Your task to perform on an android device: turn smart compose on in the gmail app Image 0: 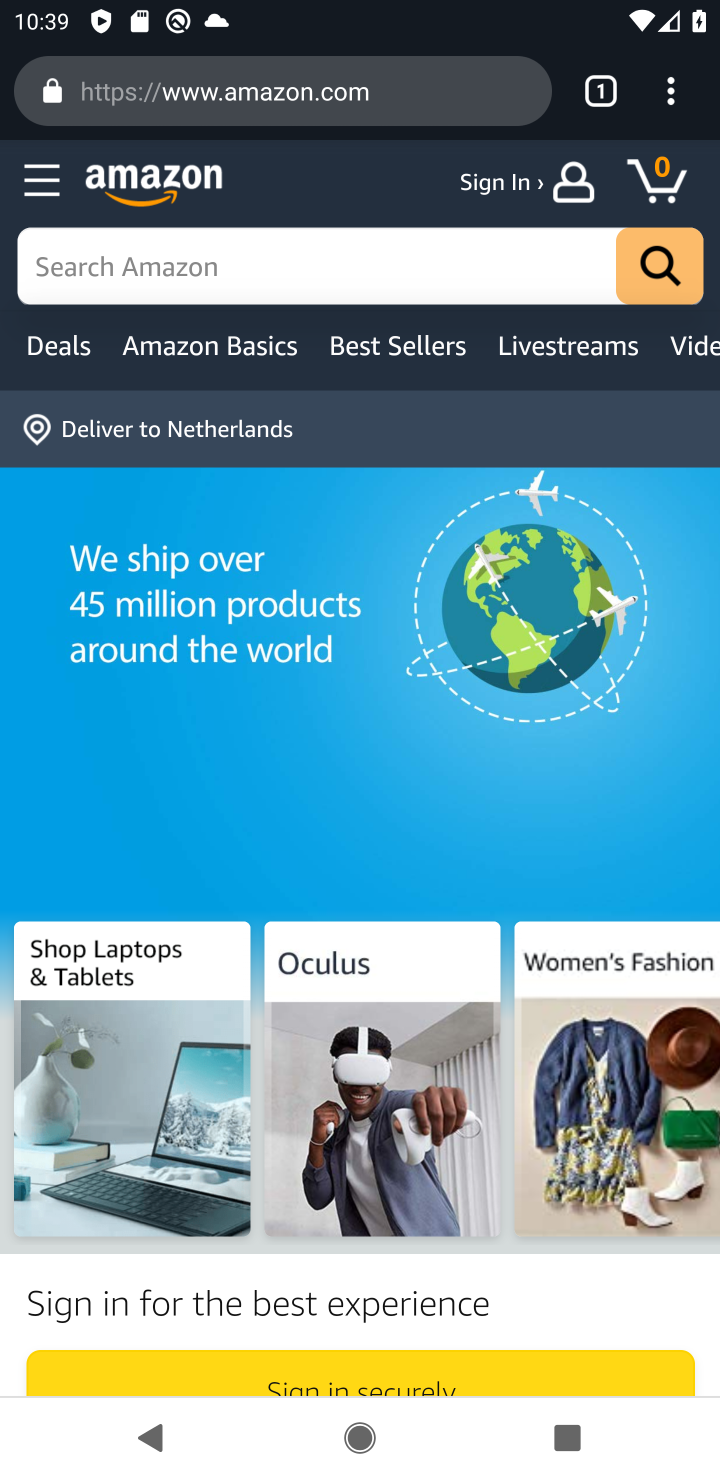
Step 0: press home button
Your task to perform on an android device: turn smart compose on in the gmail app Image 1: 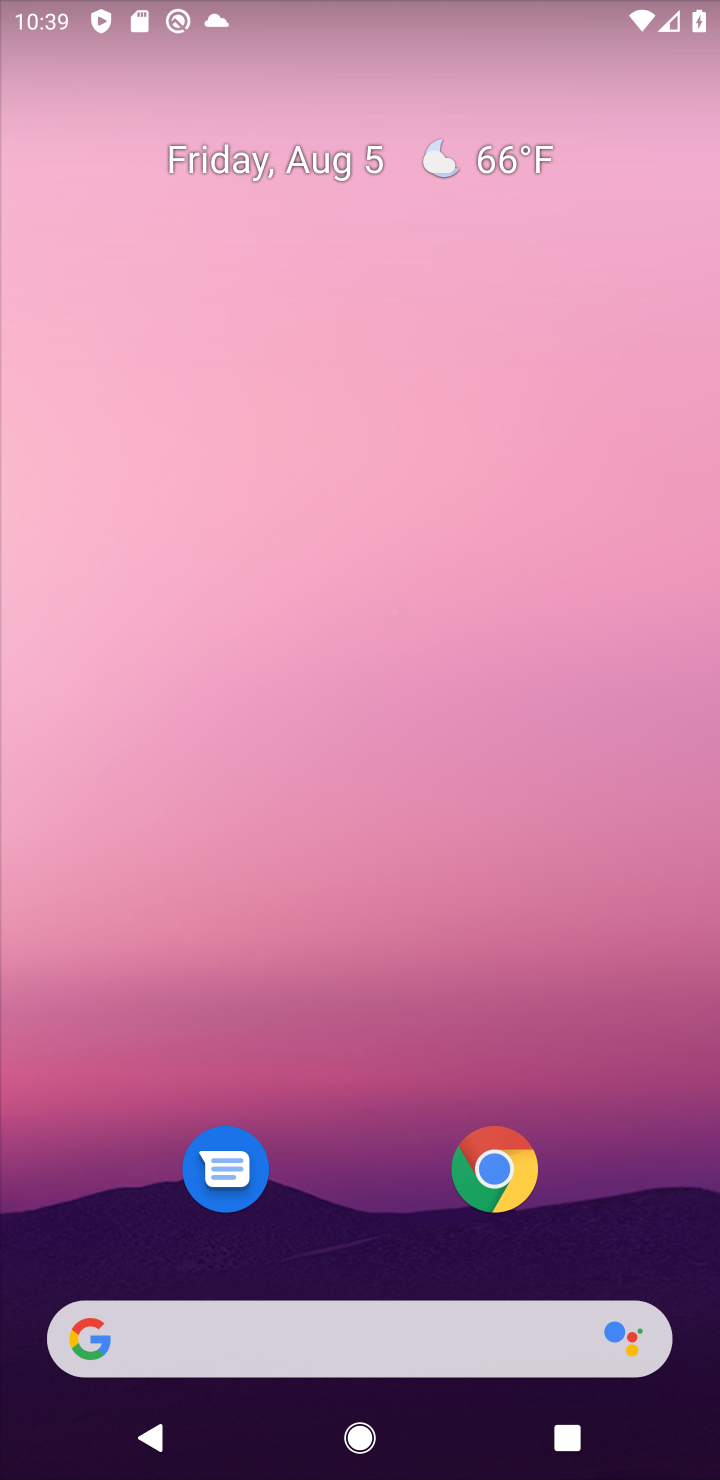
Step 1: drag from (641, 1227) to (567, 130)
Your task to perform on an android device: turn smart compose on in the gmail app Image 2: 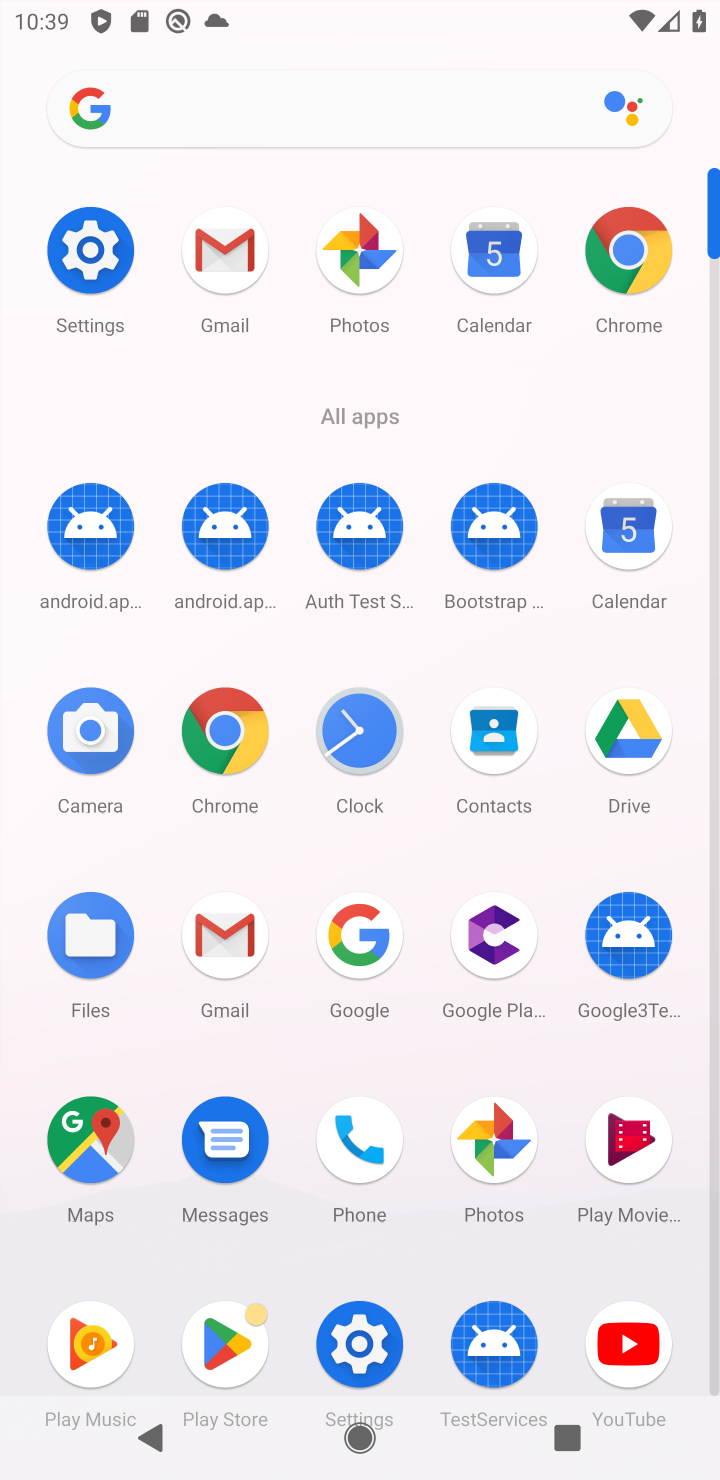
Step 2: click (215, 939)
Your task to perform on an android device: turn smart compose on in the gmail app Image 3: 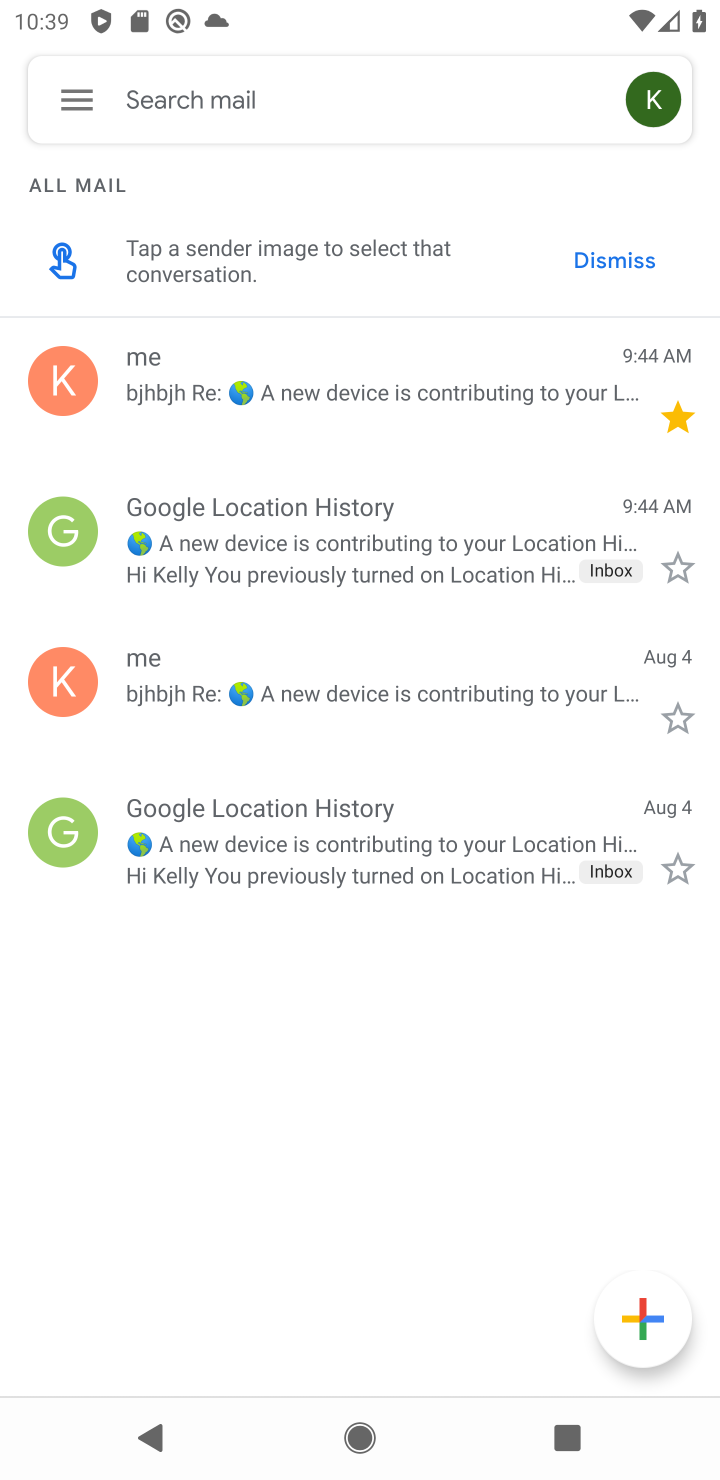
Step 3: click (67, 114)
Your task to perform on an android device: turn smart compose on in the gmail app Image 4: 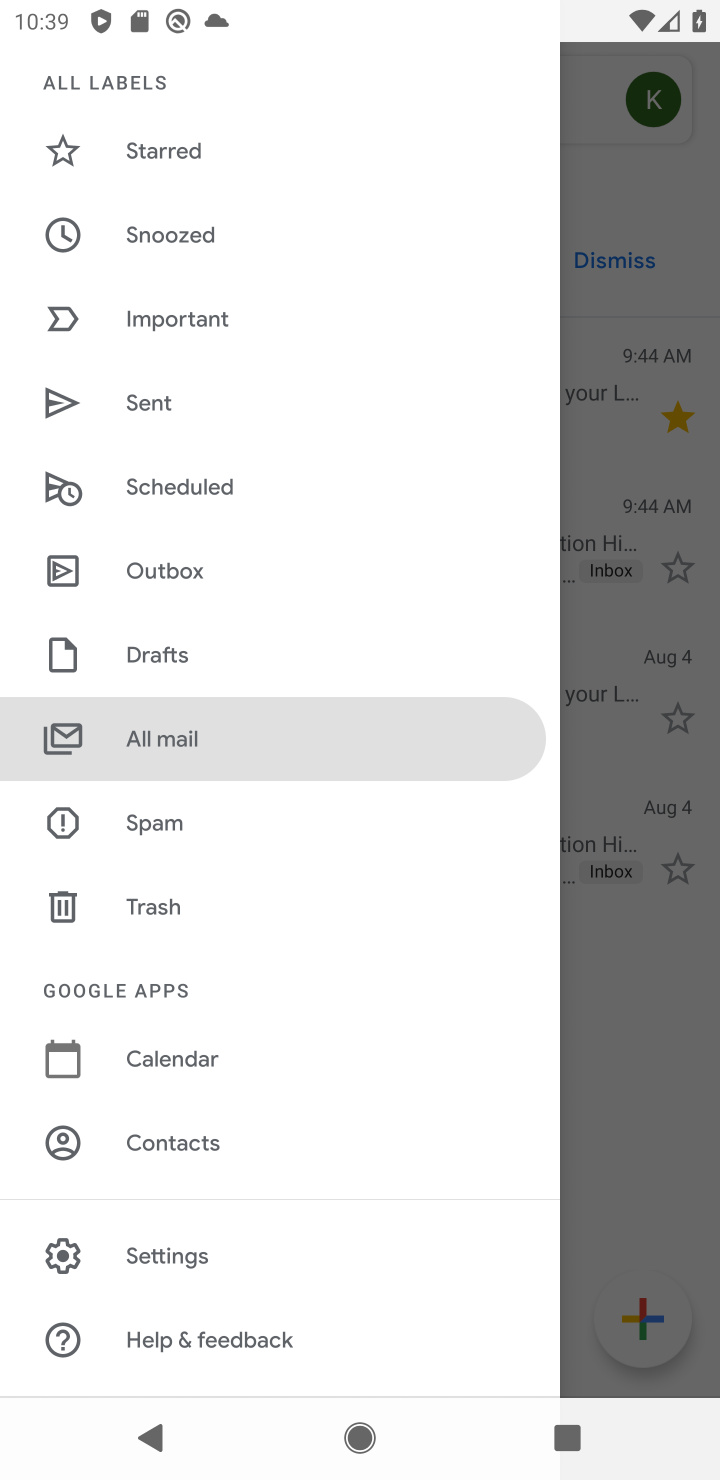
Step 4: click (163, 1258)
Your task to perform on an android device: turn smart compose on in the gmail app Image 5: 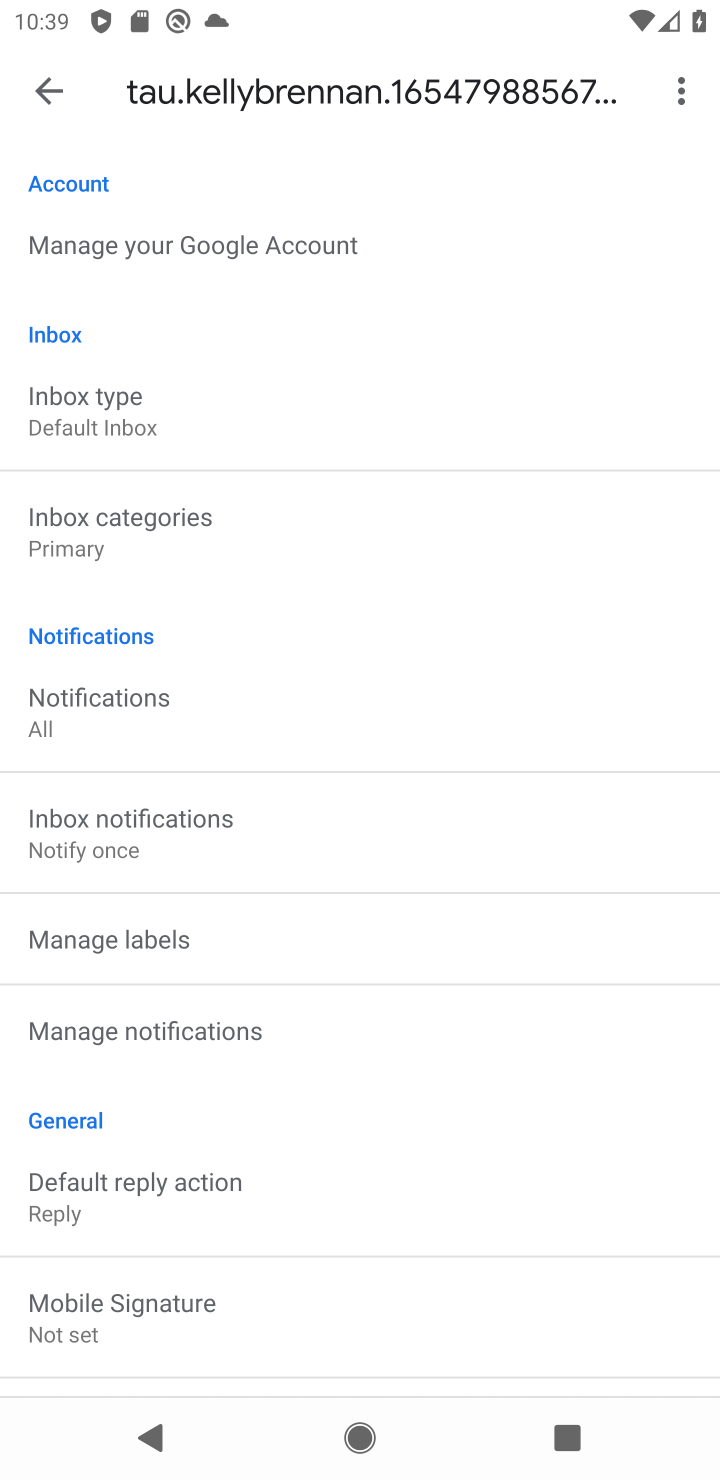
Step 5: task complete